Your task to perform on an android device: check out phone information Image 0: 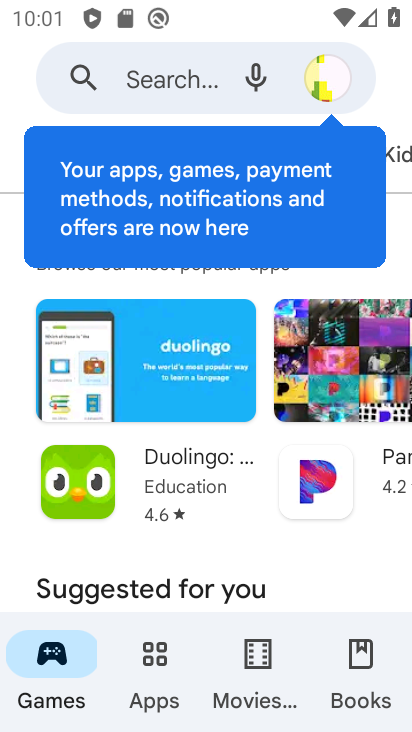
Step 0: press home button
Your task to perform on an android device: check out phone information Image 1: 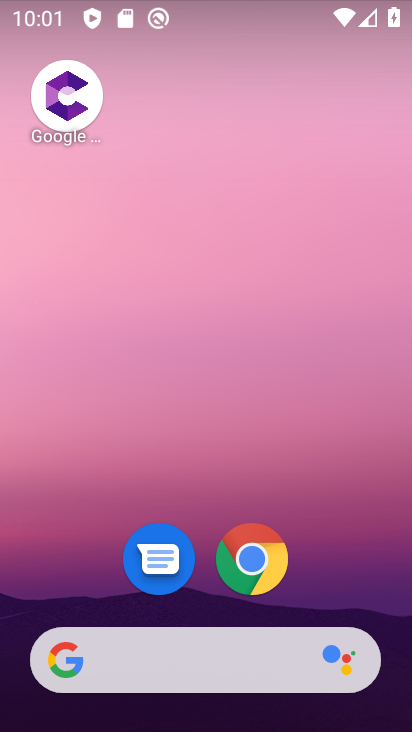
Step 1: drag from (343, 544) to (255, 68)
Your task to perform on an android device: check out phone information Image 2: 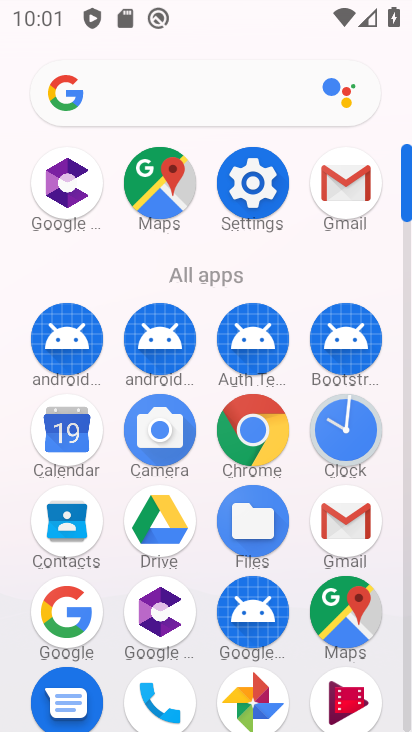
Step 2: click (203, 190)
Your task to perform on an android device: check out phone information Image 3: 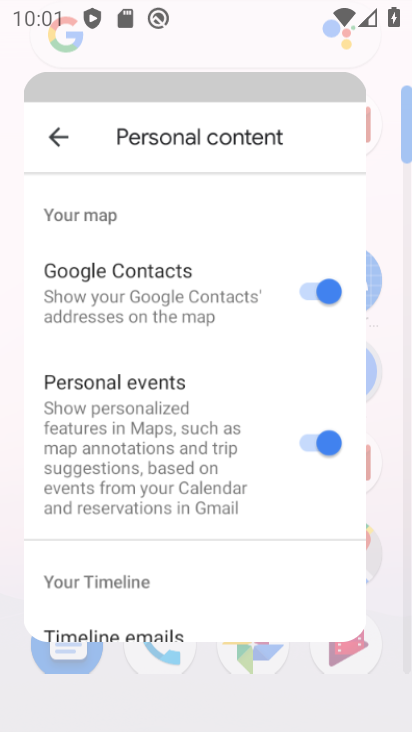
Step 3: click (253, 208)
Your task to perform on an android device: check out phone information Image 4: 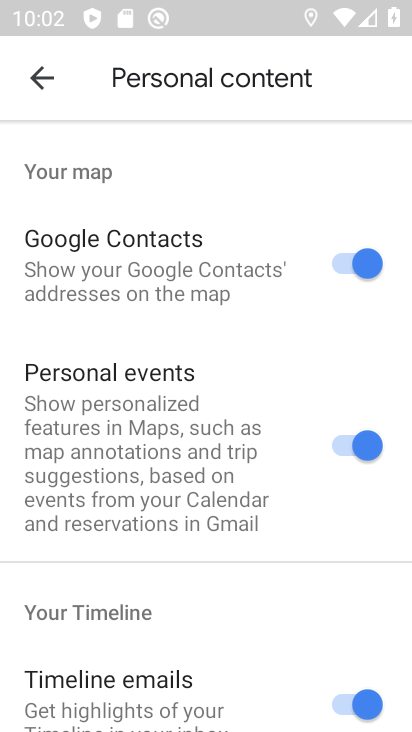
Step 4: drag from (197, 654) to (186, 277)
Your task to perform on an android device: check out phone information Image 5: 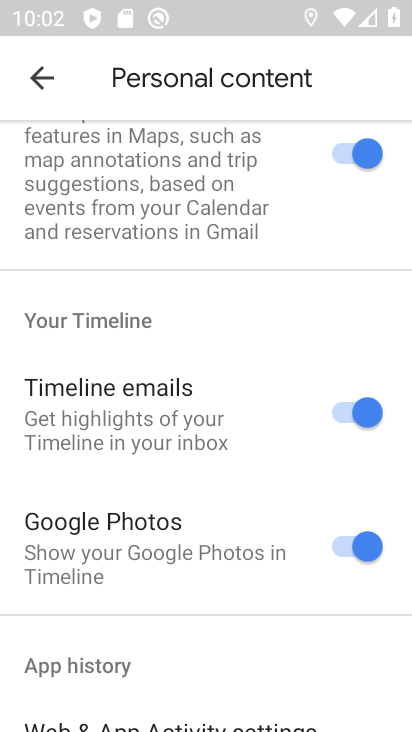
Step 5: click (40, 70)
Your task to perform on an android device: check out phone information Image 6: 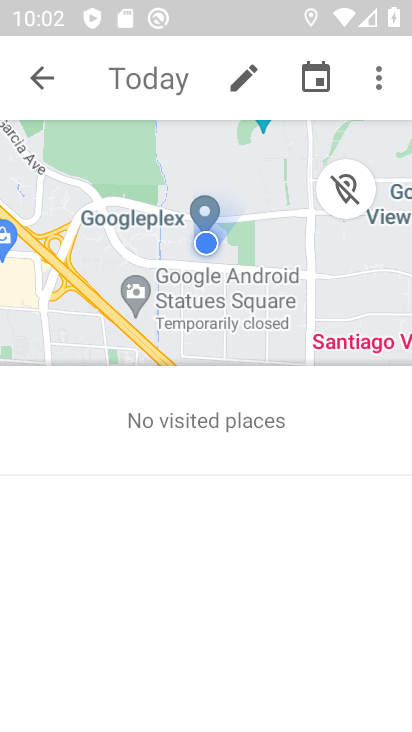
Step 6: press home button
Your task to perform on an android device: check out phone information Image 7: 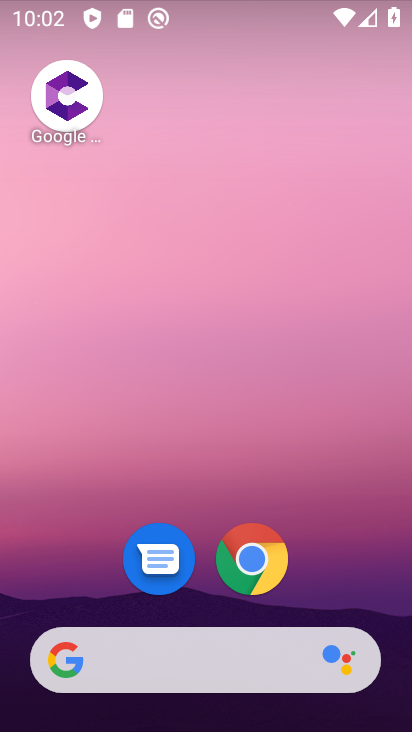
Step 7: drag from (360, 560) to (361, 134)
Your task to perform on an android device: check out phone information Image 8: 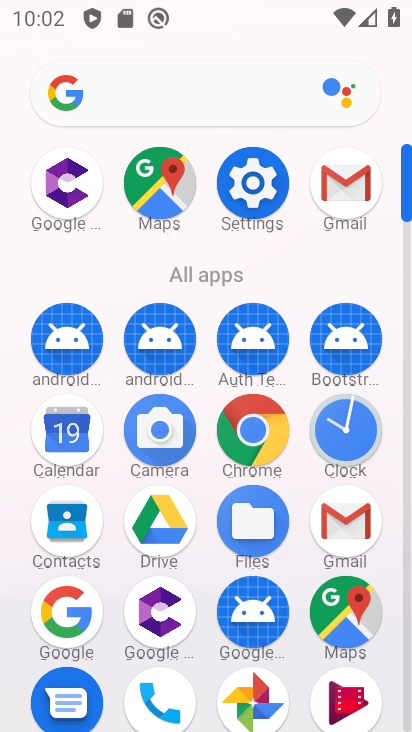
Step 8: click (262, 177)
Your task to perform on an android device: check out phone information Image 9: 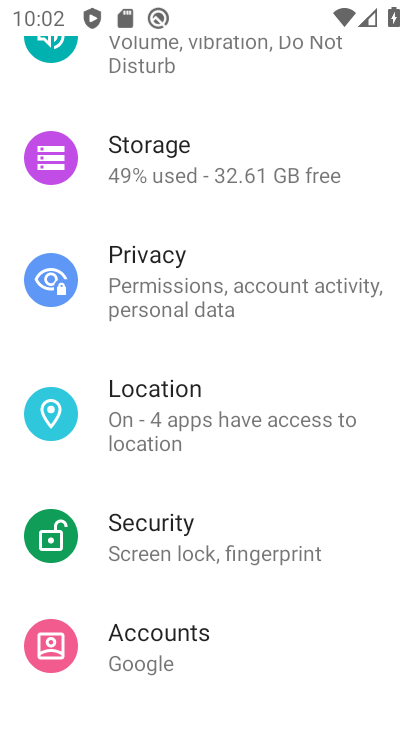
Step 9: drag from (234, 555) to (248, 264)
Your task to perform on an android device: check out phone information Image 10: 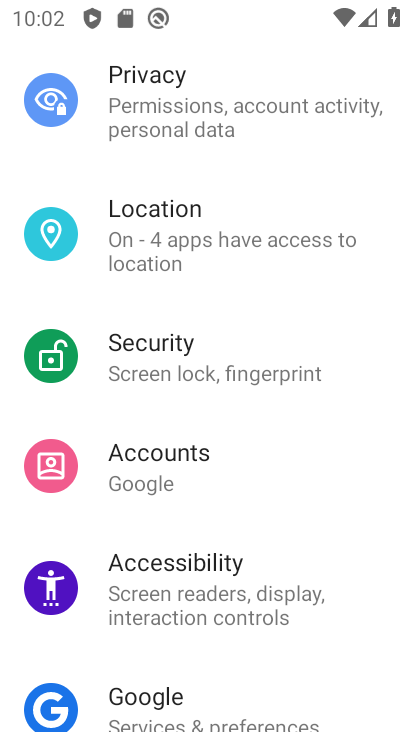
Step 10: drag from (234, 584) to (236, 270)
Your task to perform on an android device: check out phone information Image 11: 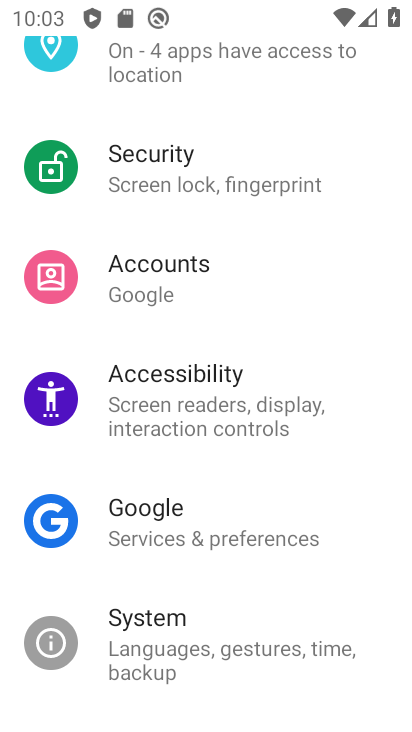
Step 11: drag from (287, 649) to (365, 123)
Your task to perform on an android device: check out phone information Image 12: 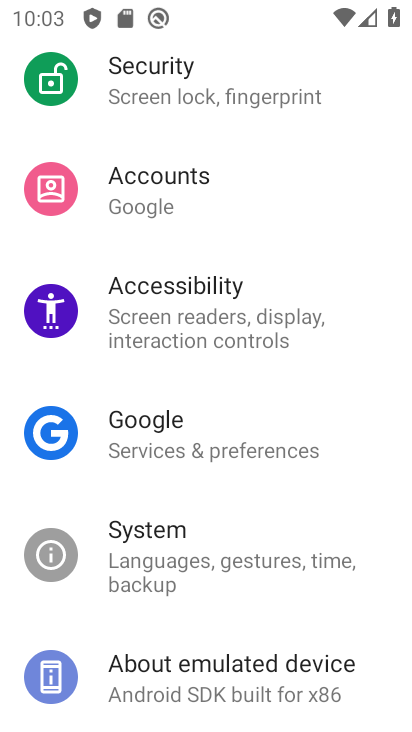
Step 12: click (217, 664)
Your task to perform on an android device: check out phone information Image 13: 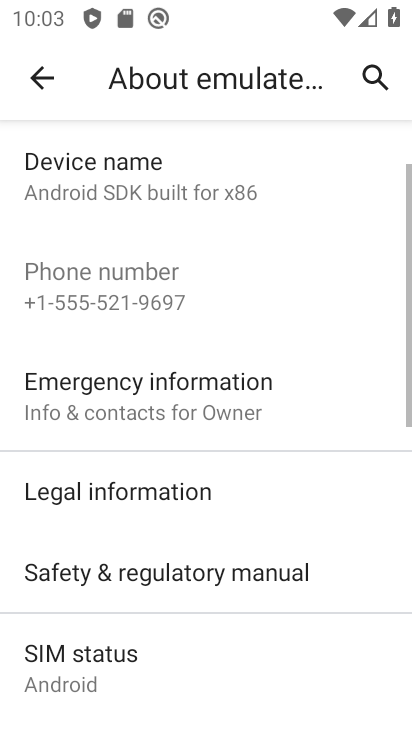
Step 13: task complete